Your task to perform on an android device: stop showing notifications on the lock screen Image 0: 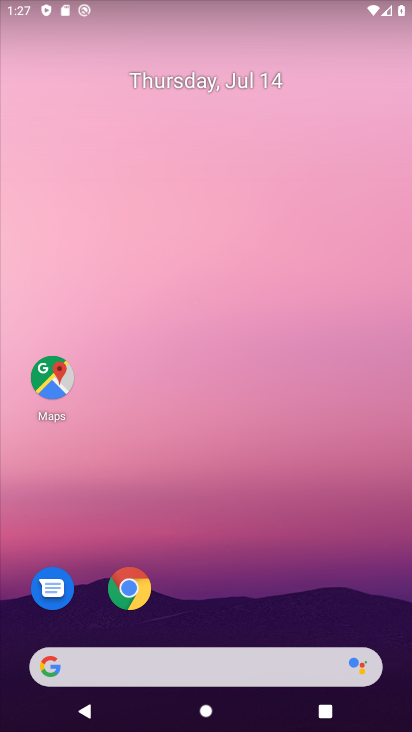
Step 0: drag from (305, 606) to (406, 11)
Your task to perform on an android device: stop showing notifications on the lock screen Image 1: 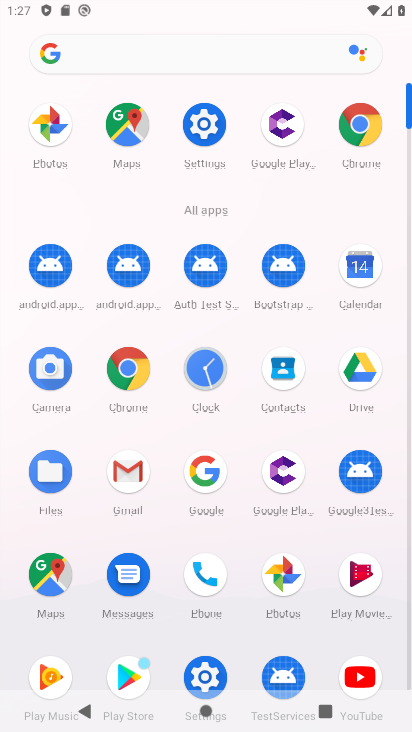
Step 1: click (207, 146)
Your task to perform on an android device: stop showing notifications on the lock screen Image 2: 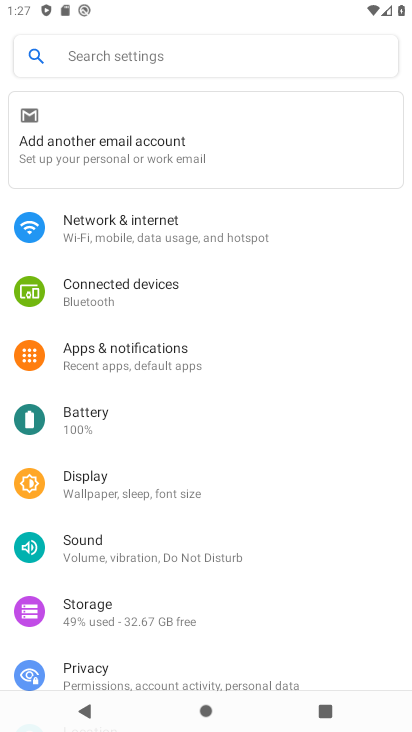
Step 2: click (142, 342)
Your task to perform on an android device: stop showing notifications on the lock screen Image 3: 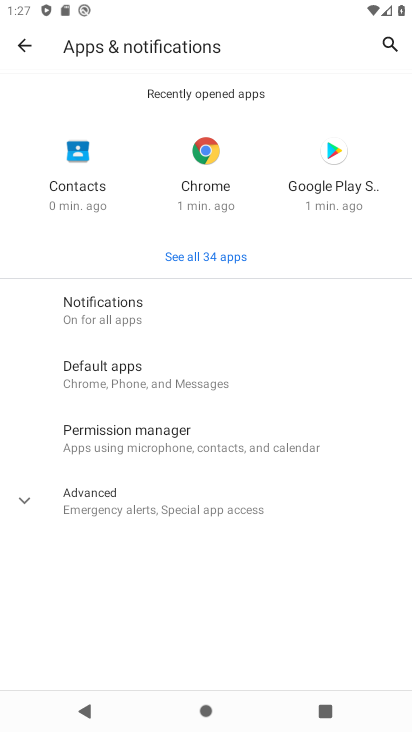
Step 3: click (85, 324)
Your task to perform on an android device: stop showing notifications on the lock screen Image 4: 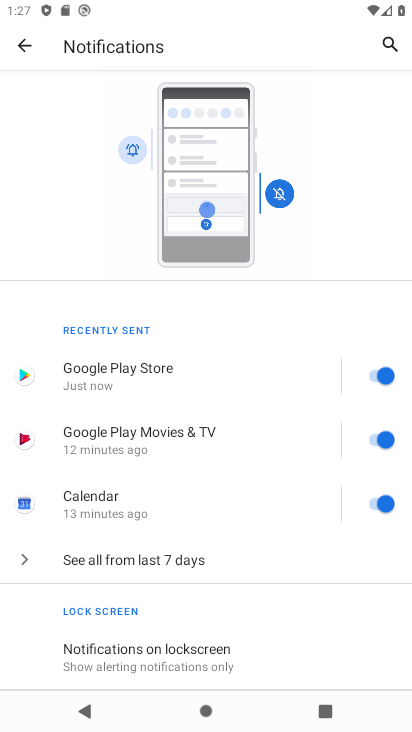
Step 4: click (187, 649)
Your task to perform on an android device: stop showing notifications on the lock screen Image 5: 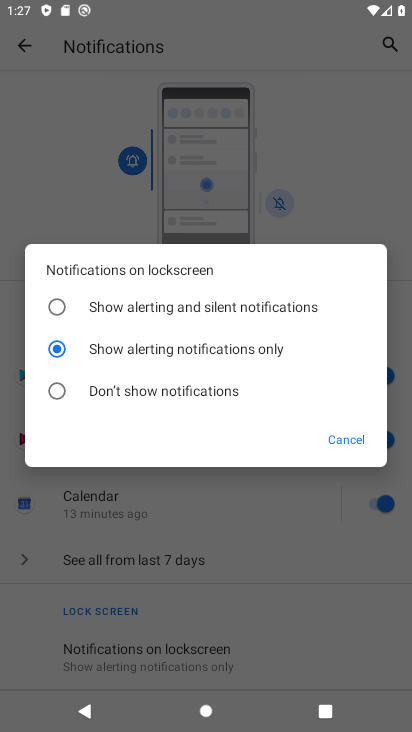
Step 5: click (124, 391)
Your task to perform on an android device: stop showing notifications on the lock screen Image 6: 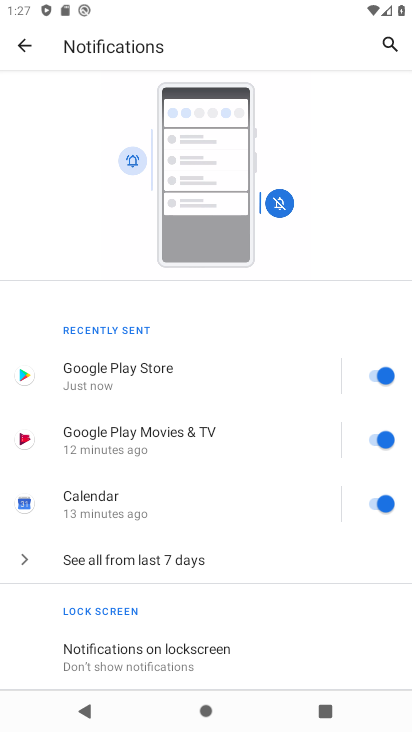
Step 6: task complete